Your task to perform on an android device: delete browsing data in the chrome app Image 0: 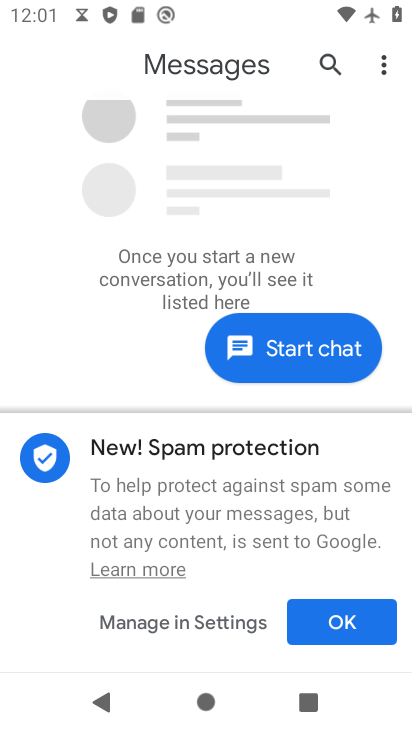
Step 0: press home button
Your task to perform on an android device: delete browsing data in the chrome app Image 1: 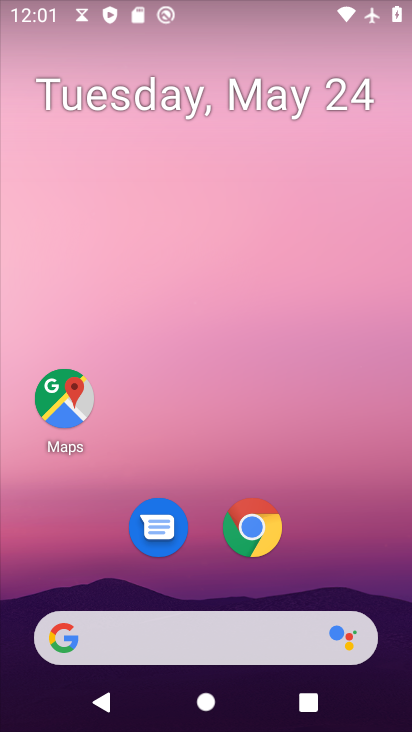
Step 1: click (250, 527)
Your task to perform on an android device: delete browsing data in the chrome app Image 2: 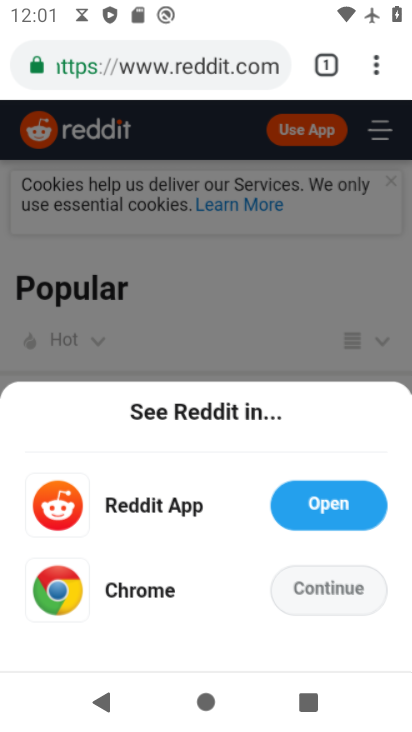
Step 2: drag from (371, 71) to (242, 569)
Your task to perform on an android device: delete browsing data in the chrome app Image 3: 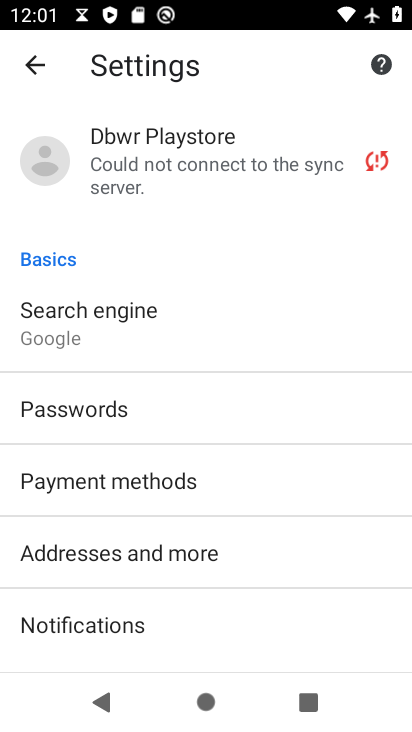
Step 3: drag from (252, 587) to (353, 349)
Your task to perform on an android device: delete browsing data in the chrome app Image 4: 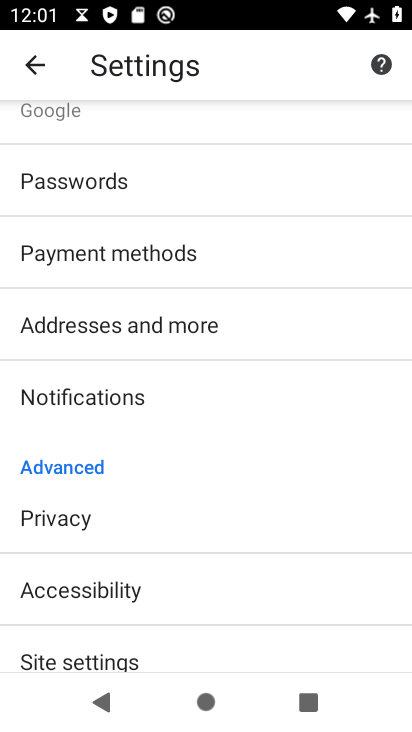
Step 4: click (92, 521)
Your task to perform on an android device: delete browsing data in the chrome app Image 5: 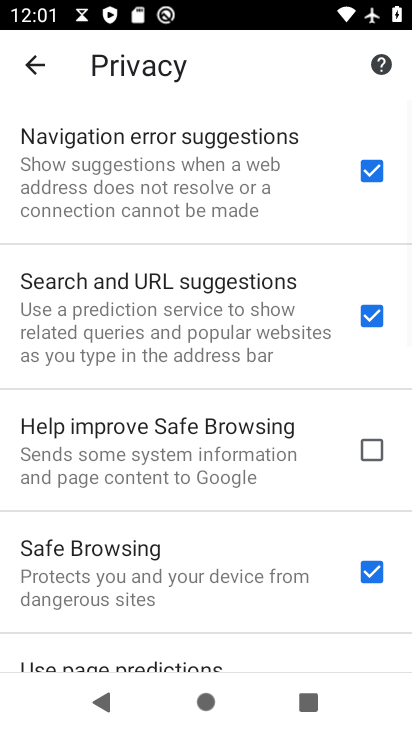
Step 5: drag from (164, 640) to (264, 126)
Your task to perform on an android device: delete browsing data in the chrome app Image 6: 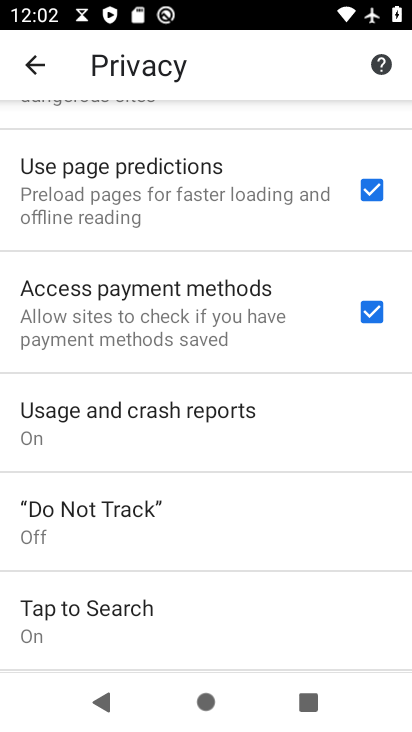
Step 6: drag from (204, 534) to (329, 148)
Your task to perform on an android device: delete browsing data in the chrome app Image 7: 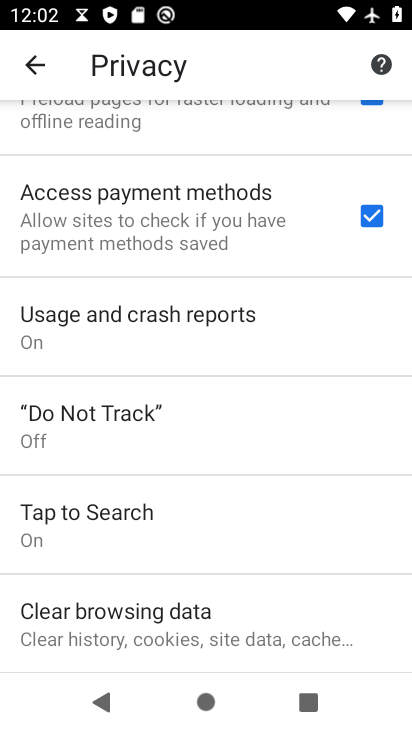
Step 7: click (153, 604)
Your task to perform on an android device: delete browsing data in the chrome app Image 8: 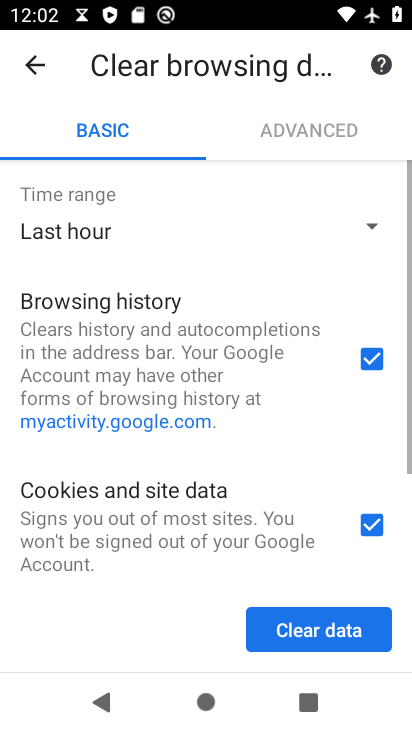
Step 8: drag from (238, 502) to (337, 206)
Your task to perform on an android device: delete browsing data in the chrome app Image 9: 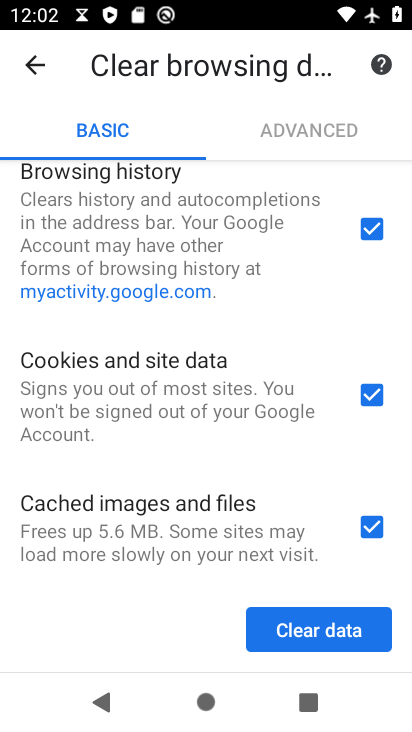
Step 9: click (324, 624)
Your task to perform on an android device: delete browsing data in the chrome app Image 10: 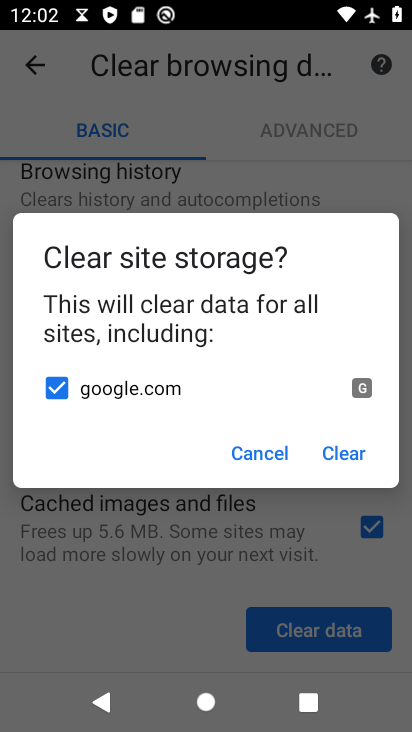
Step 10: click (340, 456)
Your task to perform on an android device: delete browsing data in the chrome app Image 11: 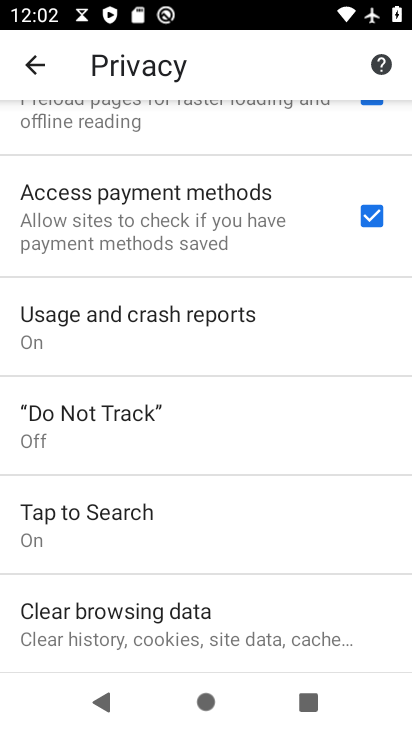
Step 11: task complete